Your task to perform on an android device: install app "Adobe Acrobat Reader" Image 0: 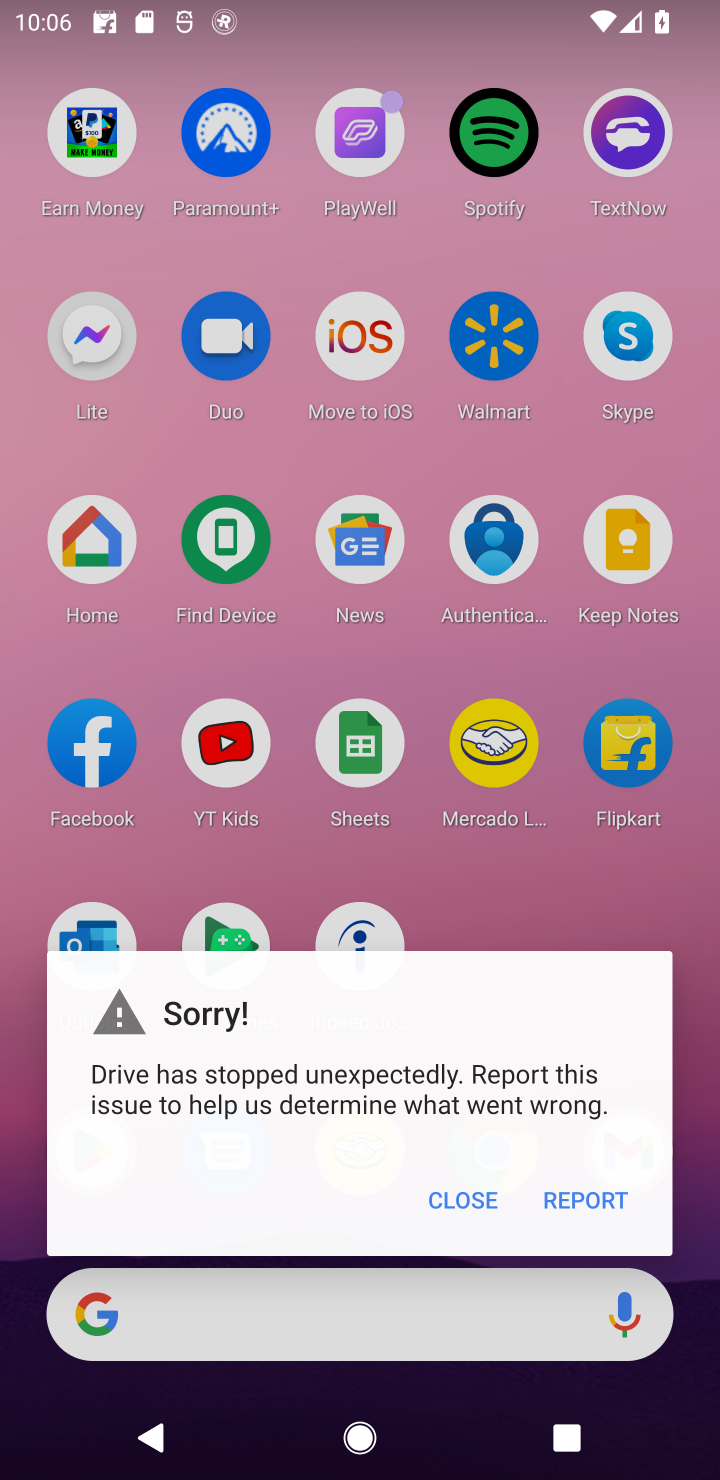
Step 0: click (87, 1132)
Your task to perform on an android device: install app "Adobe Acrobat Reader" Image 1: 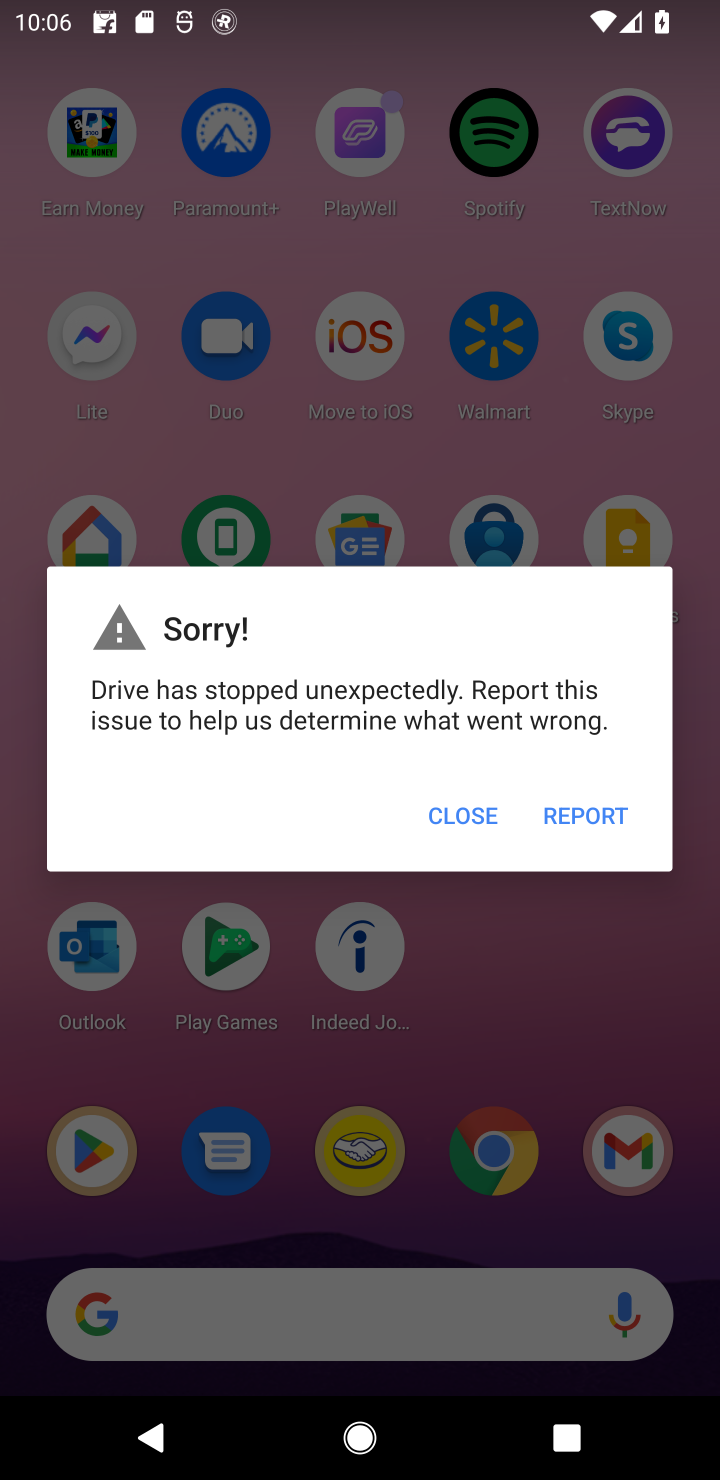
Step 1: click (485, 815)
Your task to perform on an android device: install app "Adobe Acrobat Reader" Image 2: 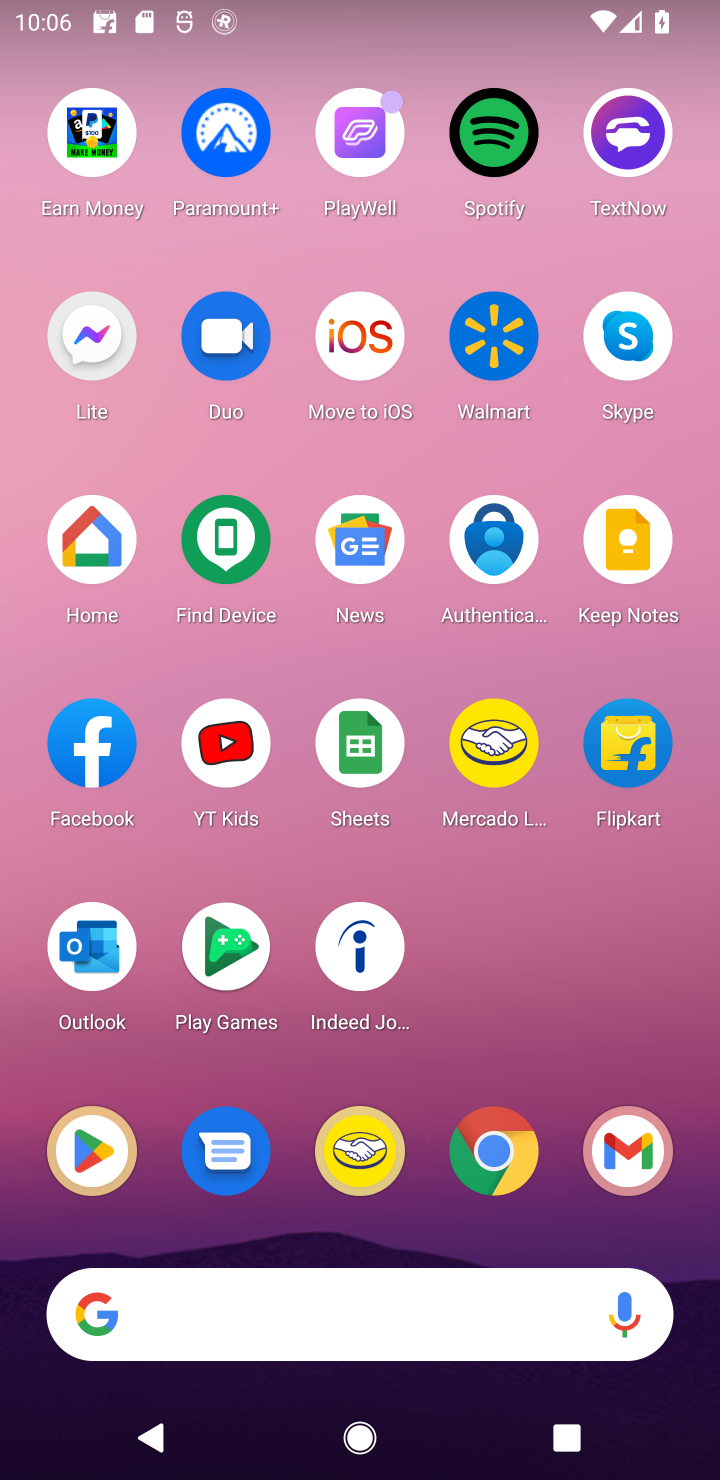
Step 2: click (73, 1159)
Your task to perform on an android device: install app "Adobe Acrobat Reader" Image 3: 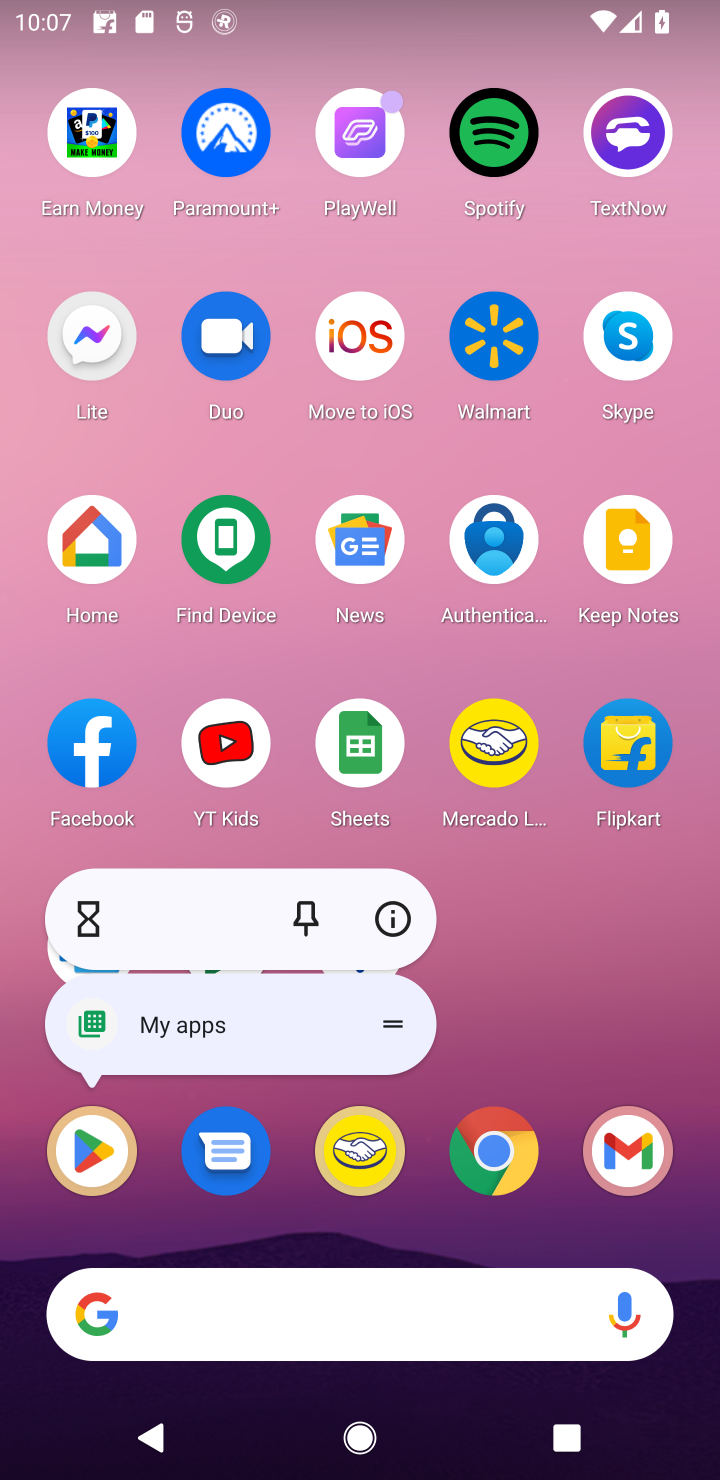
Step 3: click (73, 1159)
Your task to perform on an android device: install app "Adobe Acrobat Reader" Image 4: 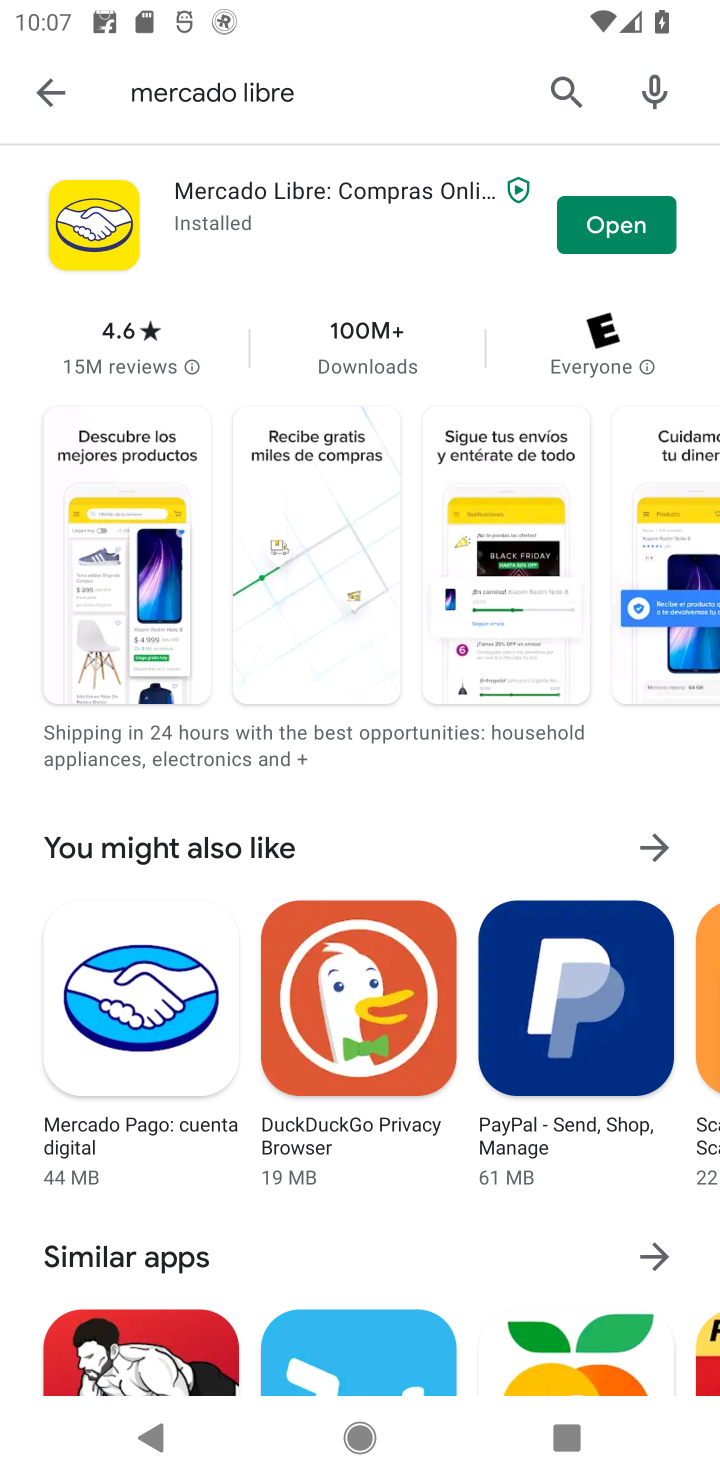
Step 4: click (574, 76)
Your task to perform on an android device: install app "Adobe Acrobat Reader" Image 5: 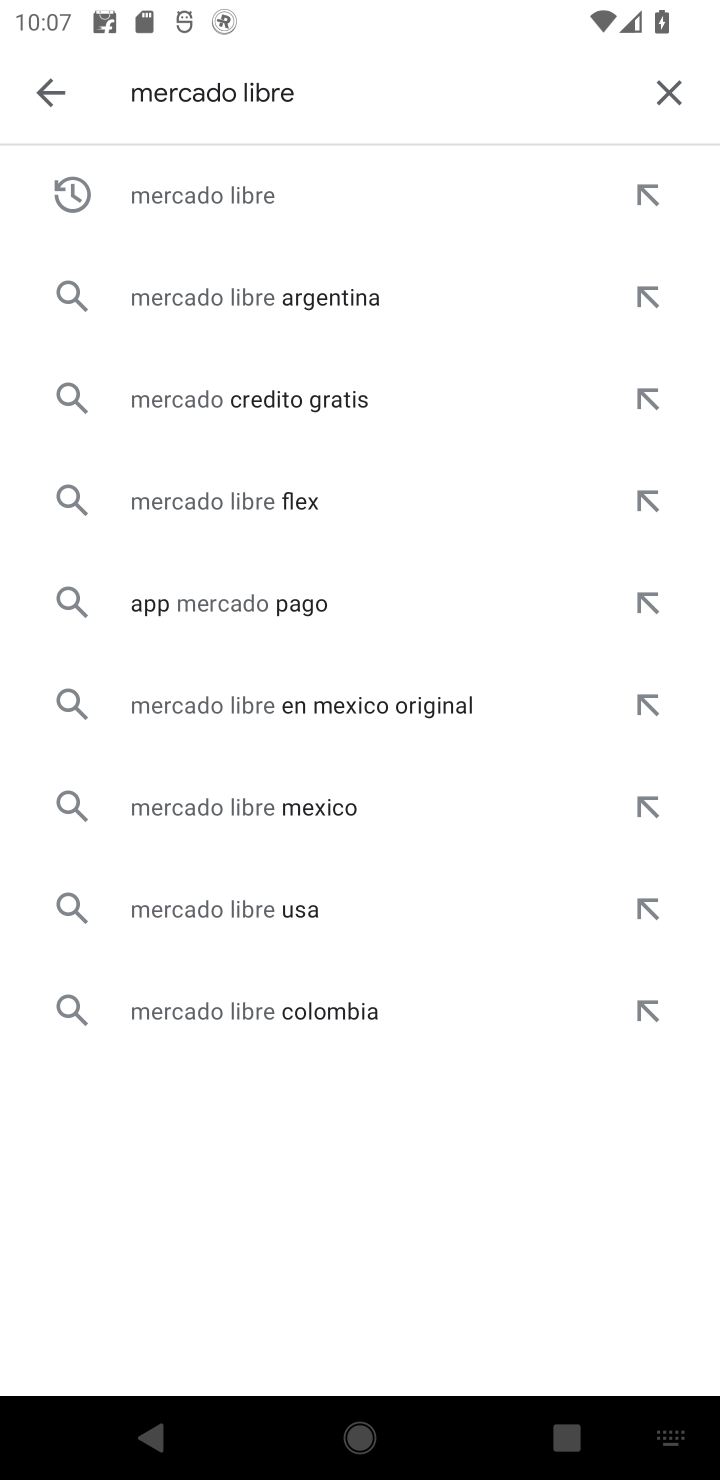
Step 5: click (680, 96)
Your task to perform on an android device: install app "Adobe Acrobat Reader" Image 6: 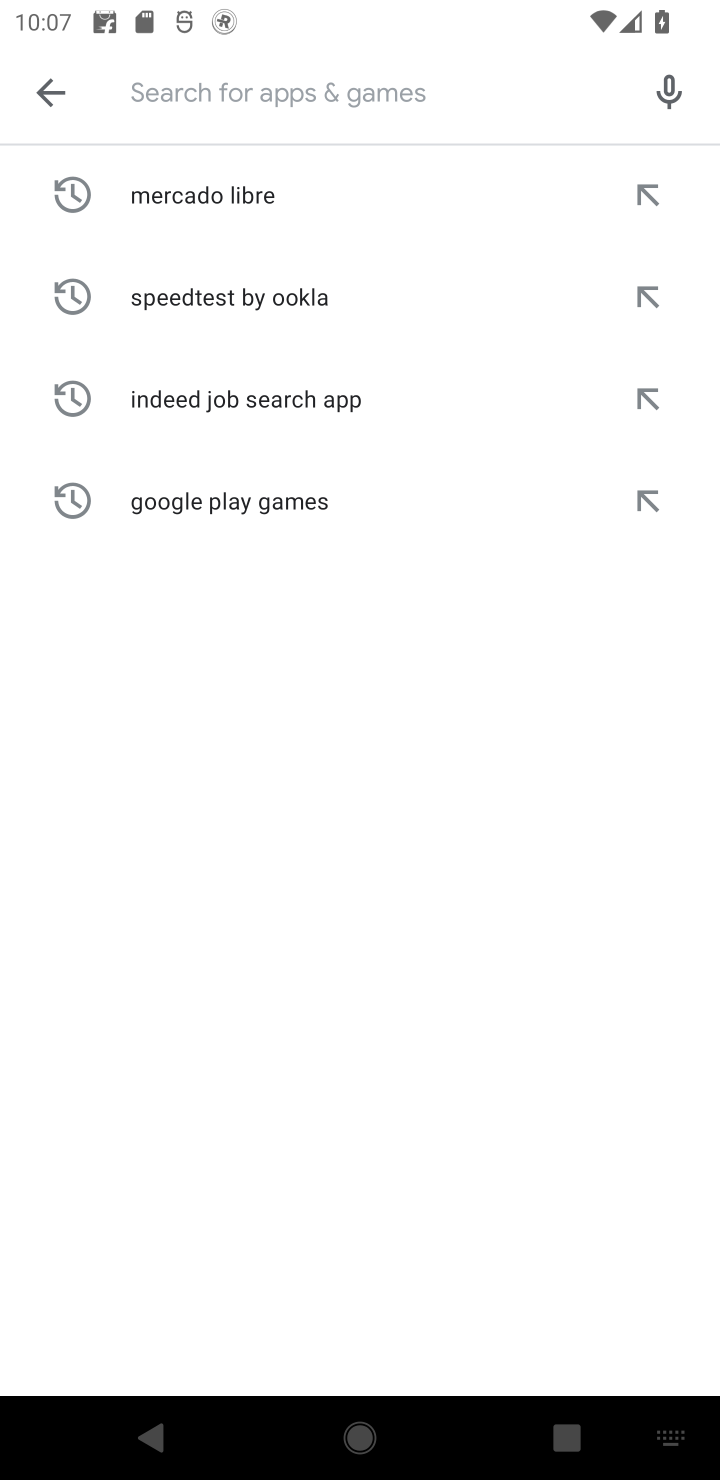
Step 6: type "Adobe Acrobat Reade"
Your task to perform on an android device: install app "Adobe Acrobat Reader" Image 7: 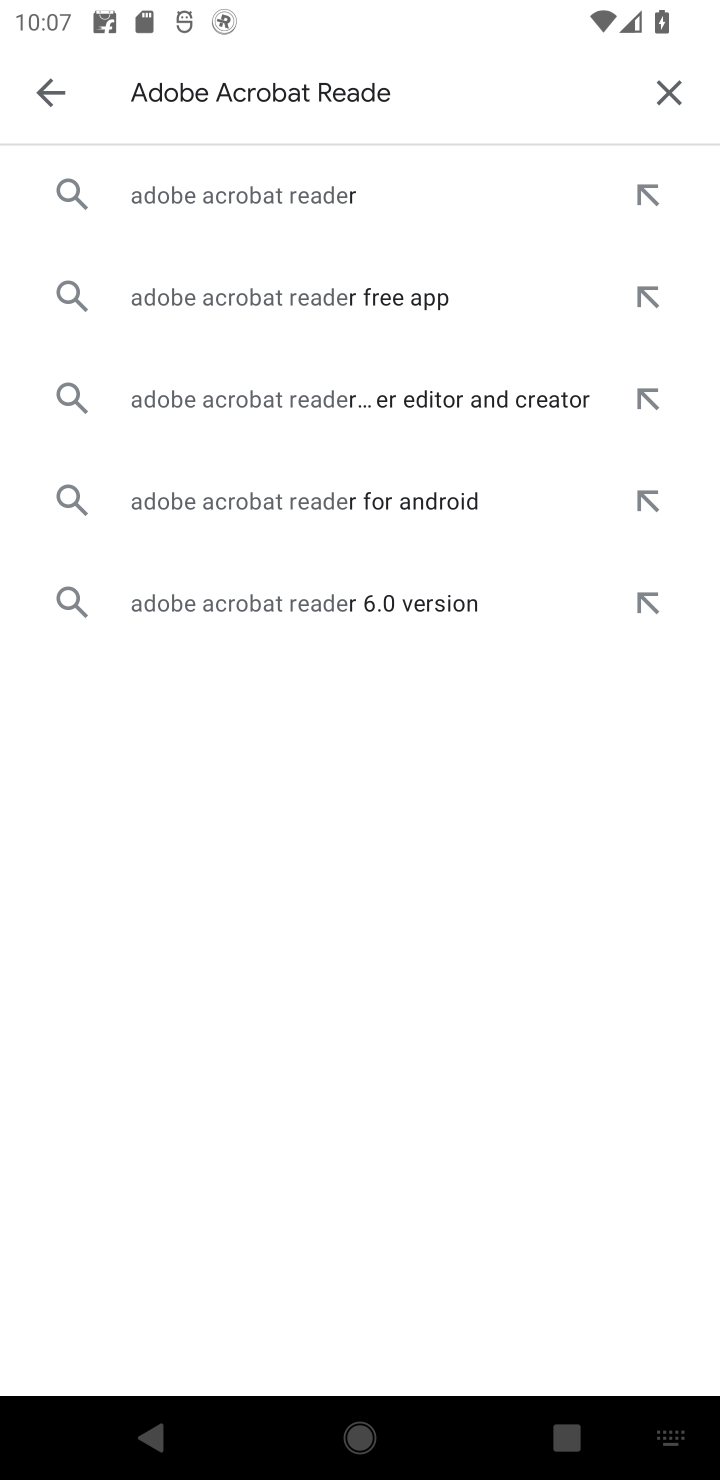
Step 7: click (312, 214)
Your task to perform on an android device: install app "Adobe Acrobat Reader" Image 8: 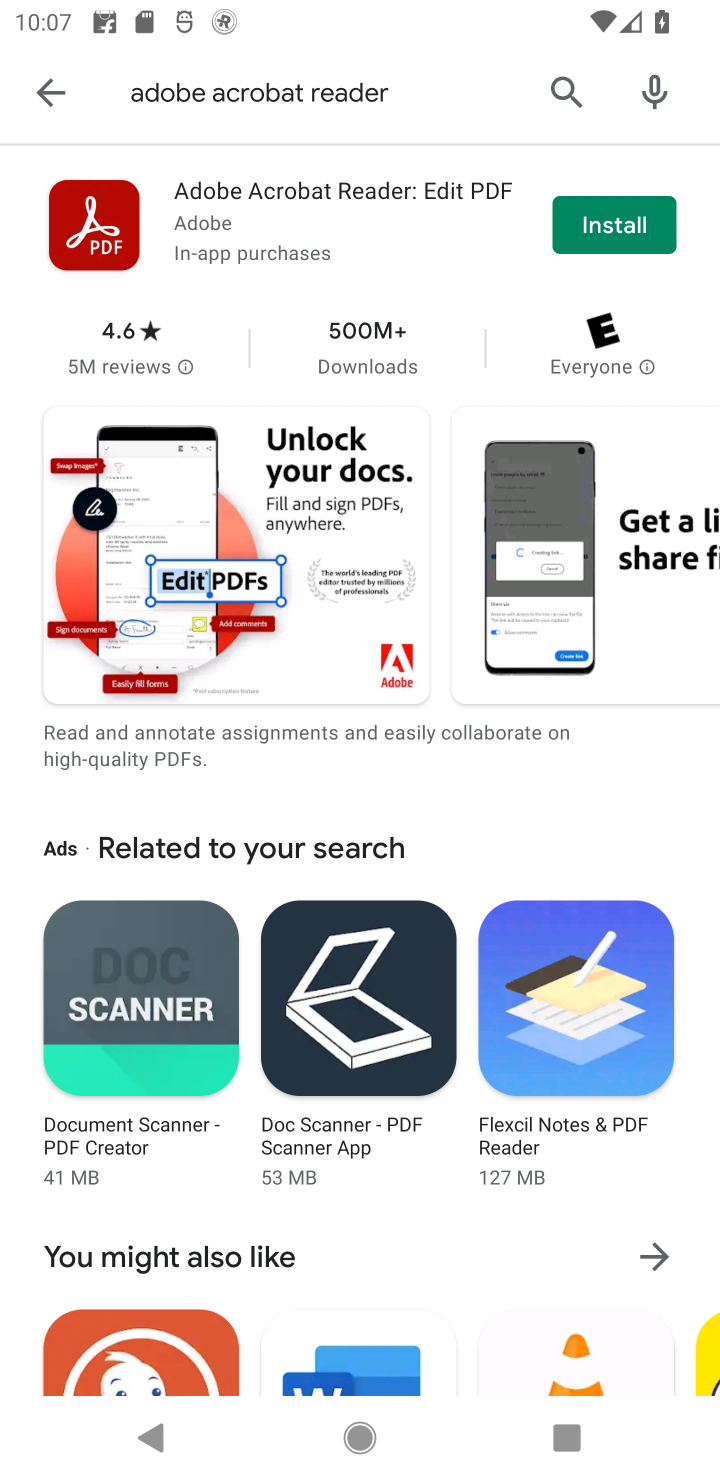
Step 8: click (589, 212)
Your task to perform on an android device: install app "Adobe Acrobat Reader" Image 9: 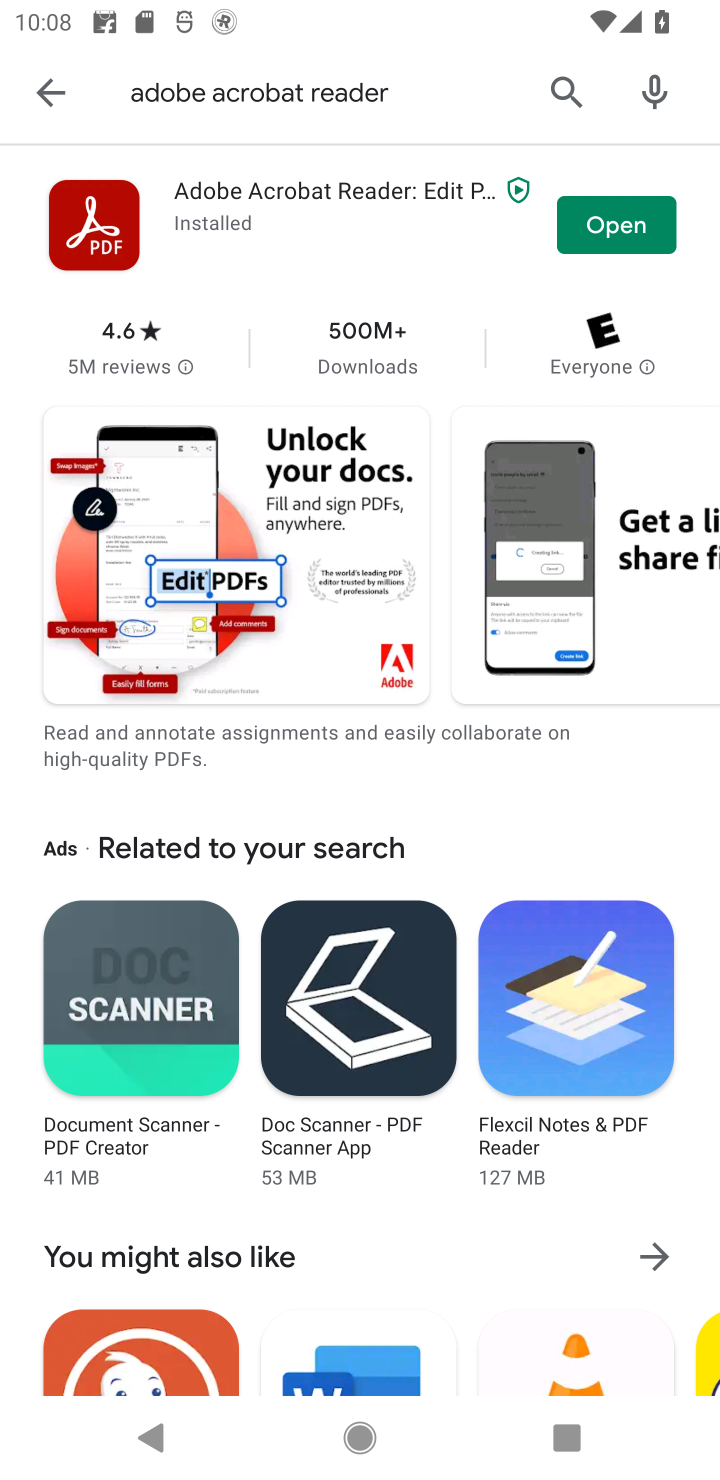
Step 9: task complete